Your task to perform on an android device: change the clock display to show seconds Image 0: 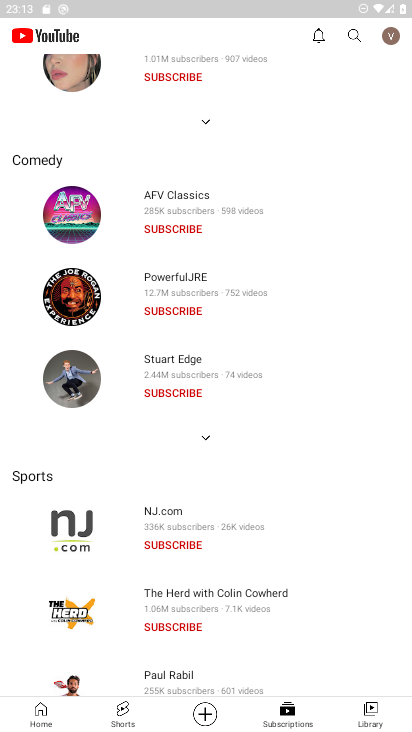
Step 0: press home button
Your task to perform on an android device: change the clock display to show seconds Image 1: 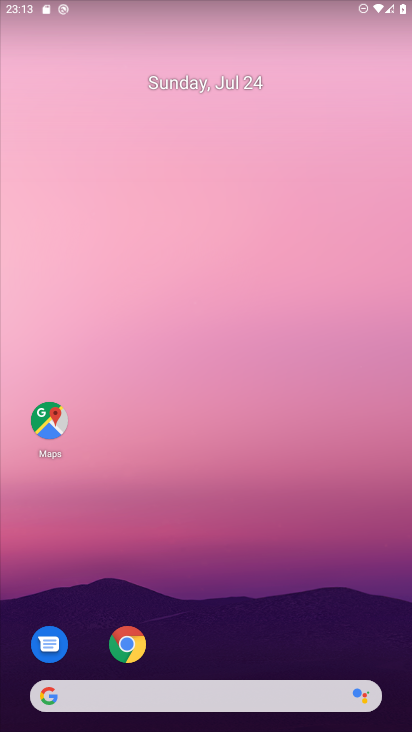
Step 1: drag from (358, 636) to (324, 145)
Your task to perform on an android device: change the clock display to show seconds Image 2: 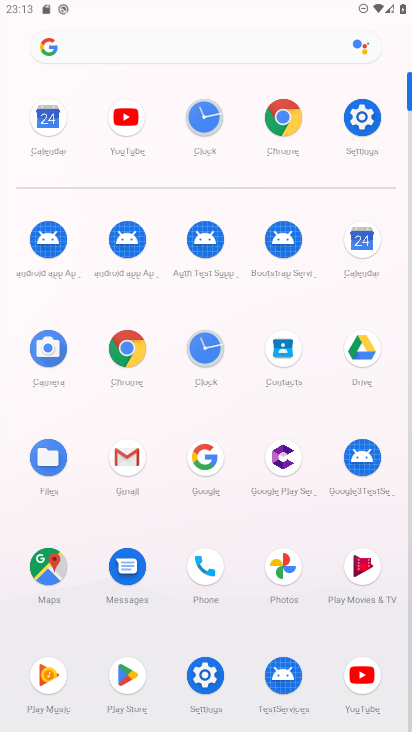
Step 2: click (207, 346)
Your task to perform on an android device: change the clock display to show seconds Image 3: 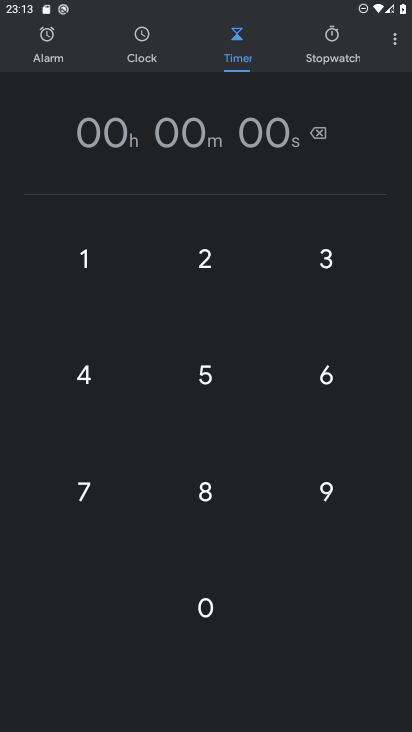
Step 3: click (396, 45)
Your task to perform on an android device: change the clock display to show seconds Image 4: 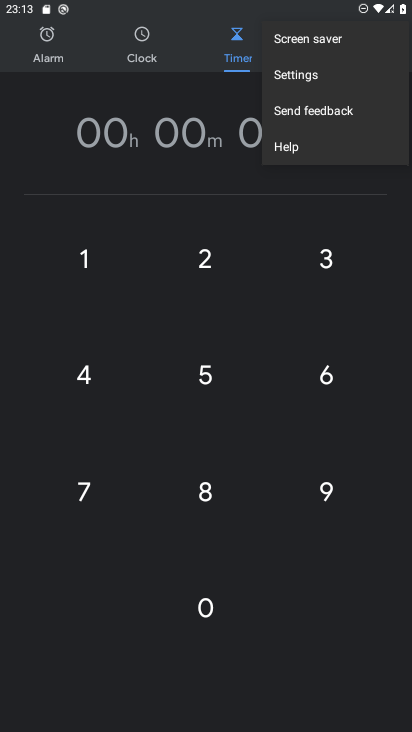
Step 4: click (290, 75)
Your task to perform on an android device: change the clock display to show seconds Image 5: 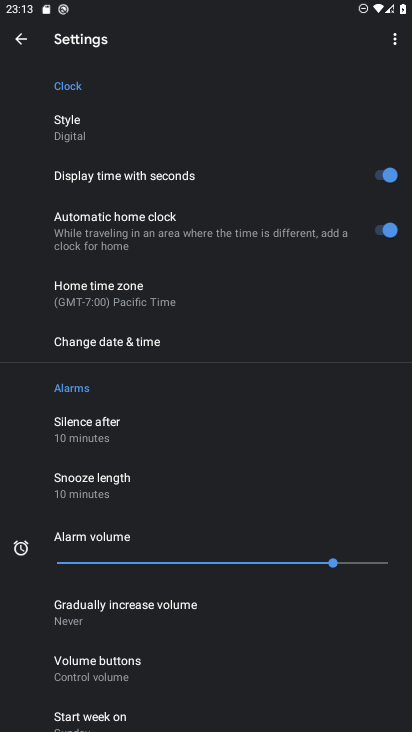
Step 5: task complete